Your task to perform on an android device: Open Yahoo.com Image 0: 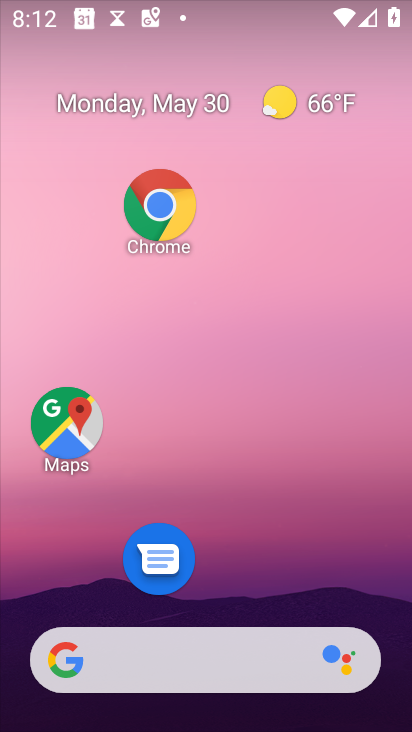
Step 0: drag from (262, 683) to (139, 265)
Your task to perform on an android device: Open Yahoo.com Image 1: 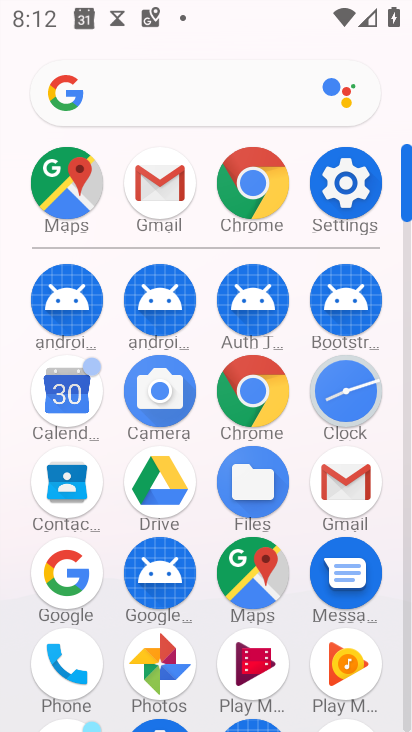
Step 1: click (251, 185)
Your task to perform on an android device: Open Yahoo.com Image 2: 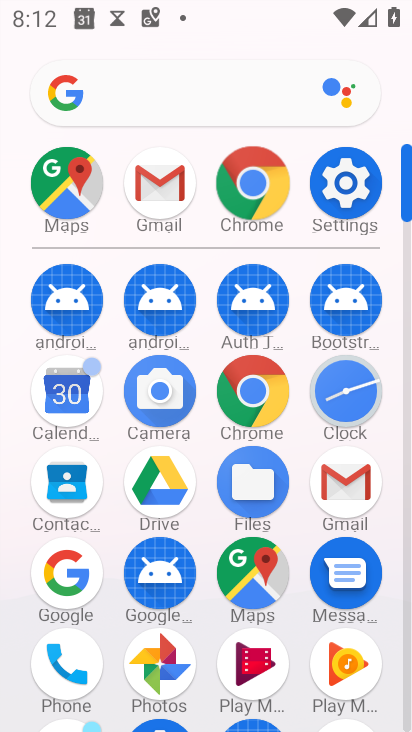
Step 2: click (263, 189)
Your task to perform on an android device: Open Yahoo.com Image 3: 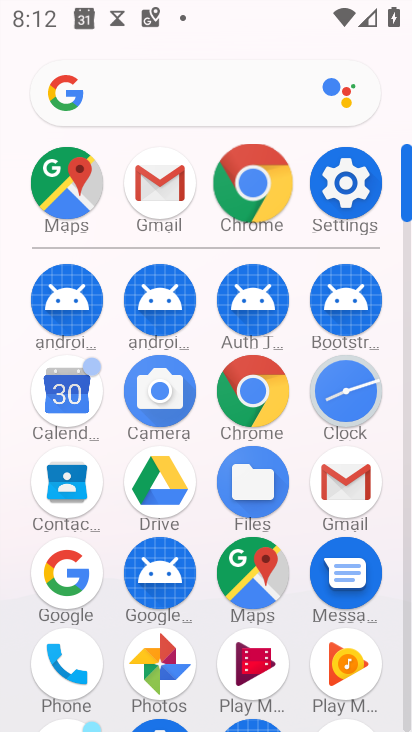
Step 3: click (263, 189)
Your task to perform on an android device: Open Yahoo.com Image 4: 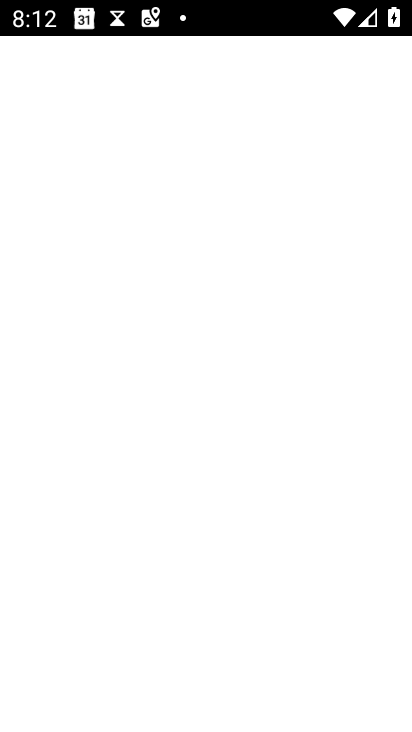
Step 4: click (263, 189)
Your task to perform on an android device: Open Yahoo.com Image 5: 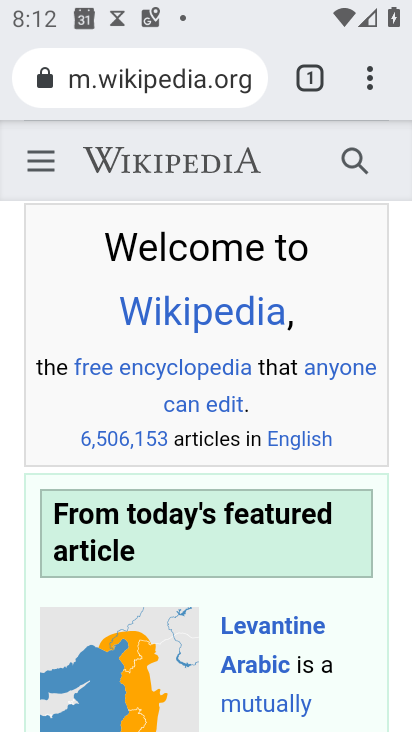
Step 5: click (366, 83)
Your task to perform on an android device: Open Yahoo.com Image 6: 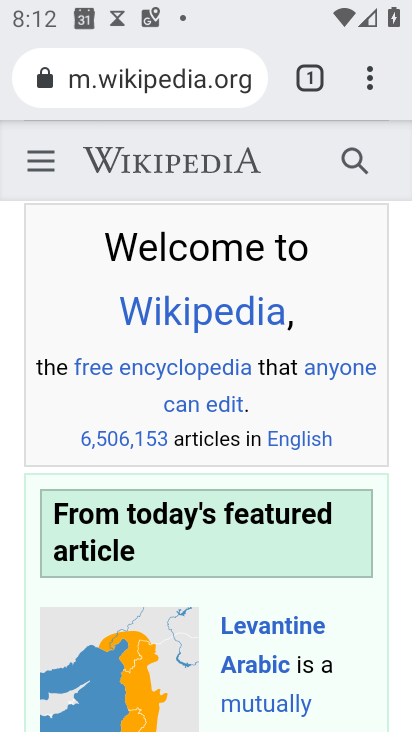
Step 6: drag from (367, 71) to (77, 147)
Your task to perform on an android device: Open Yahoo.com Image 7: 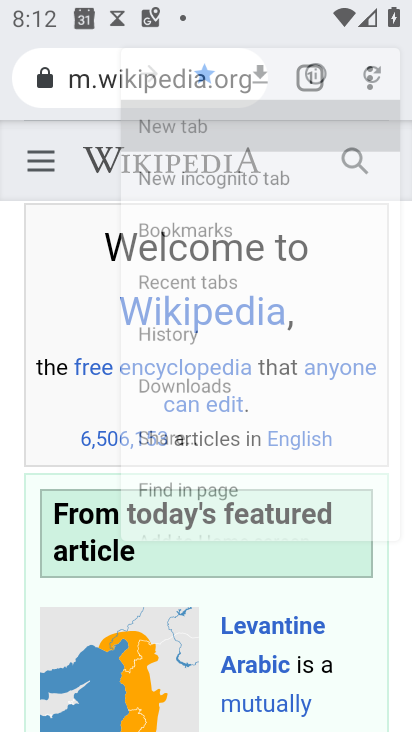
Step 7: click (77, 147)
Your task to perform on an android device: Open Yahoo.com Image 8: 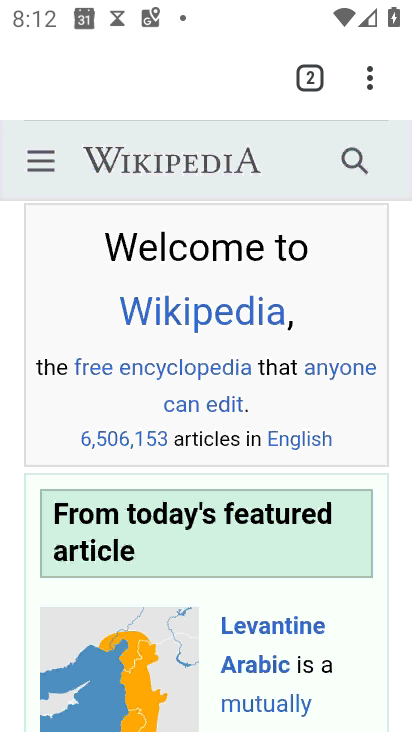
Step 8: click (77, 147)
Your task to perform on an android device: Open Yahoo.com Image 9: 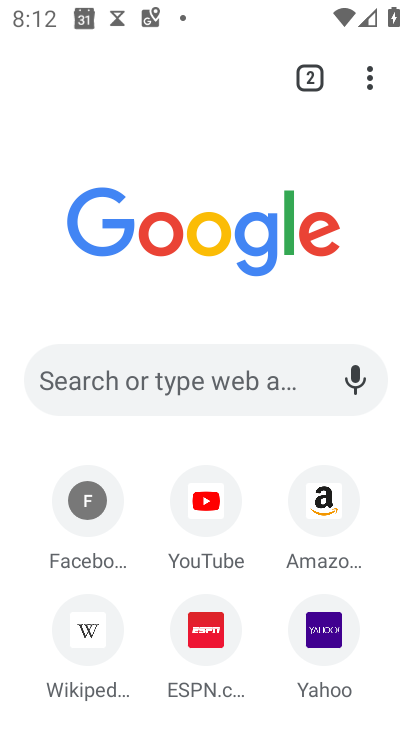
Step 9: click (331, 636)
Your task to perform on an android device: Open Yahoo.com Image 10: 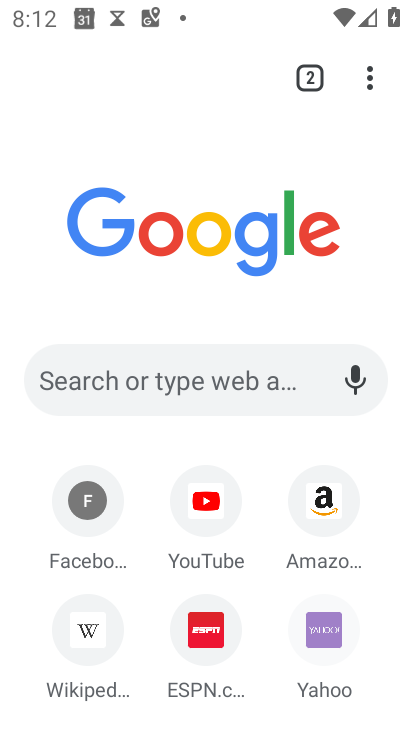
Step 10: click (332, 636)
Your task to perform on an android device: Open Yahoo.com Image 11: 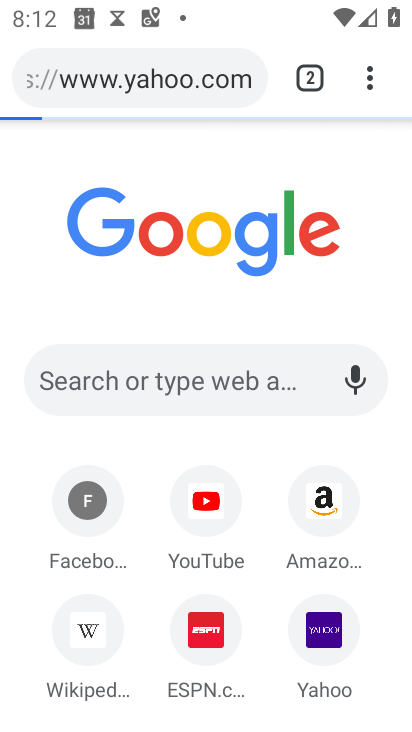
Step 11: click (332, 636)
Your task to perform on an android device: Open Yahoo.com Image 12: 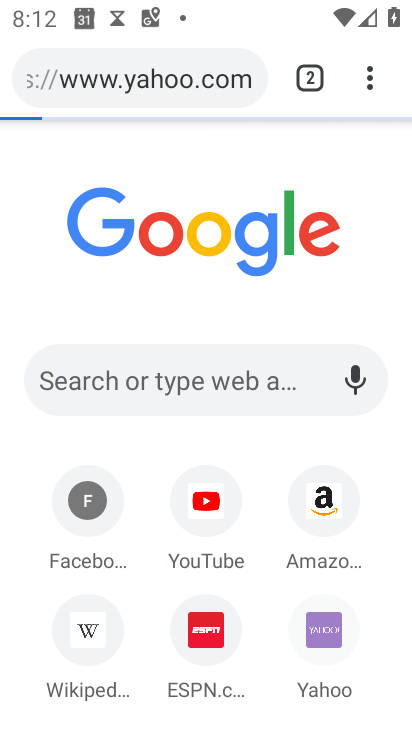
Step 12: click (332, 636)
Your task to perform on an android device: Open Yahoo.com Image 13: 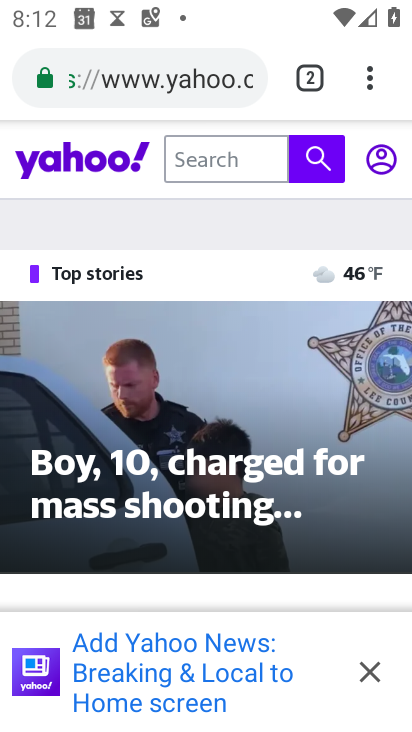
Step 13: task complete